Your task to perform on an android device: uninstall "Indeed Job Search" Image 0: 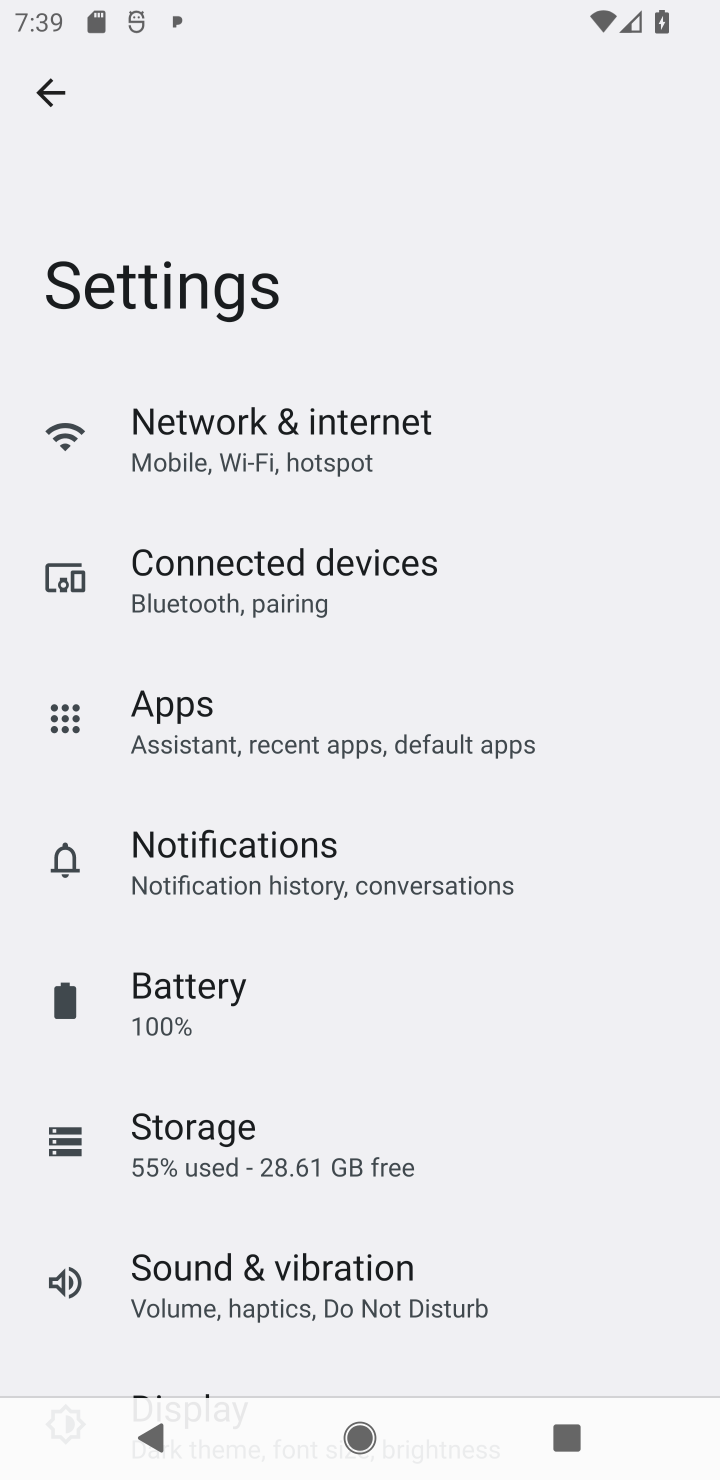
Step 0: press home button
Your task to perform on an android device: uninstall "Indeed Job Search" Image 1: 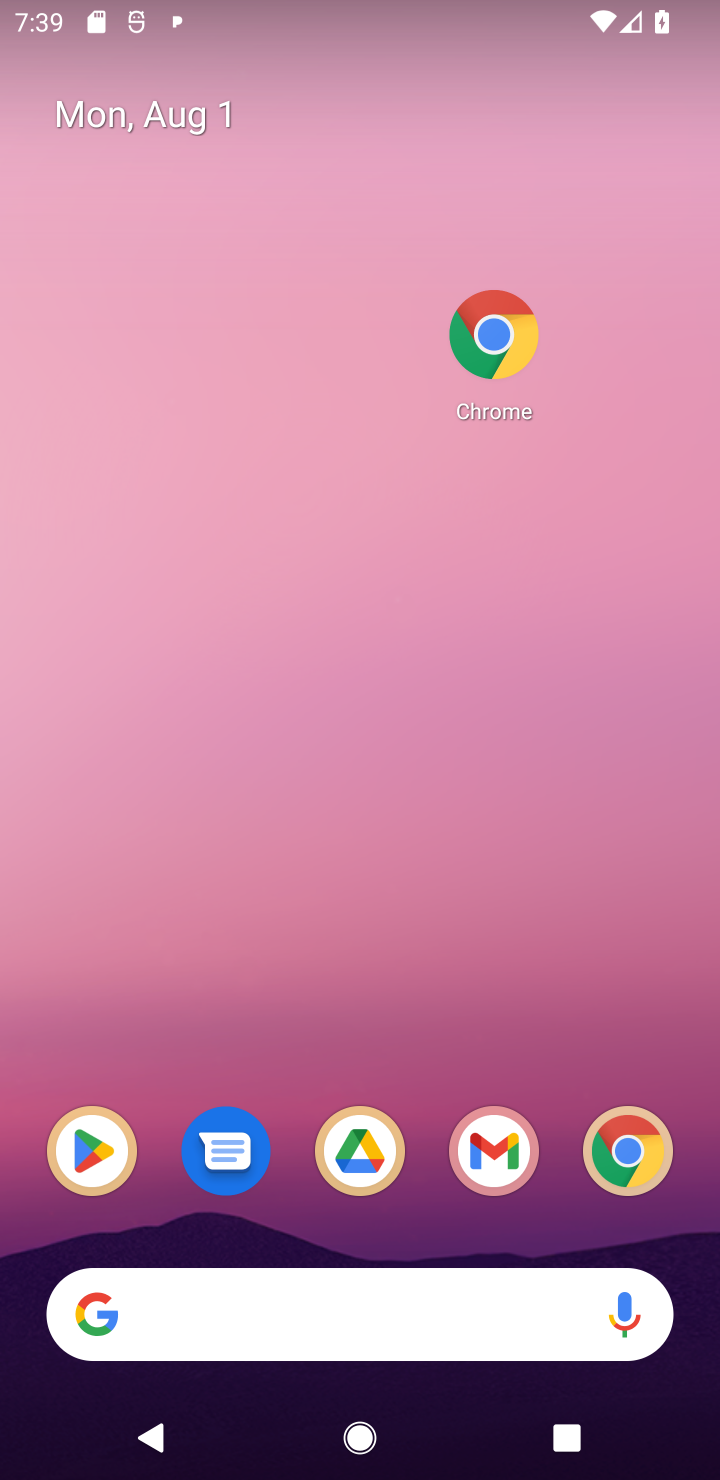
Step 1: click (109, 1145)
Your task to perform on an android device: uninstall "Indeed Job Search" Image 2: 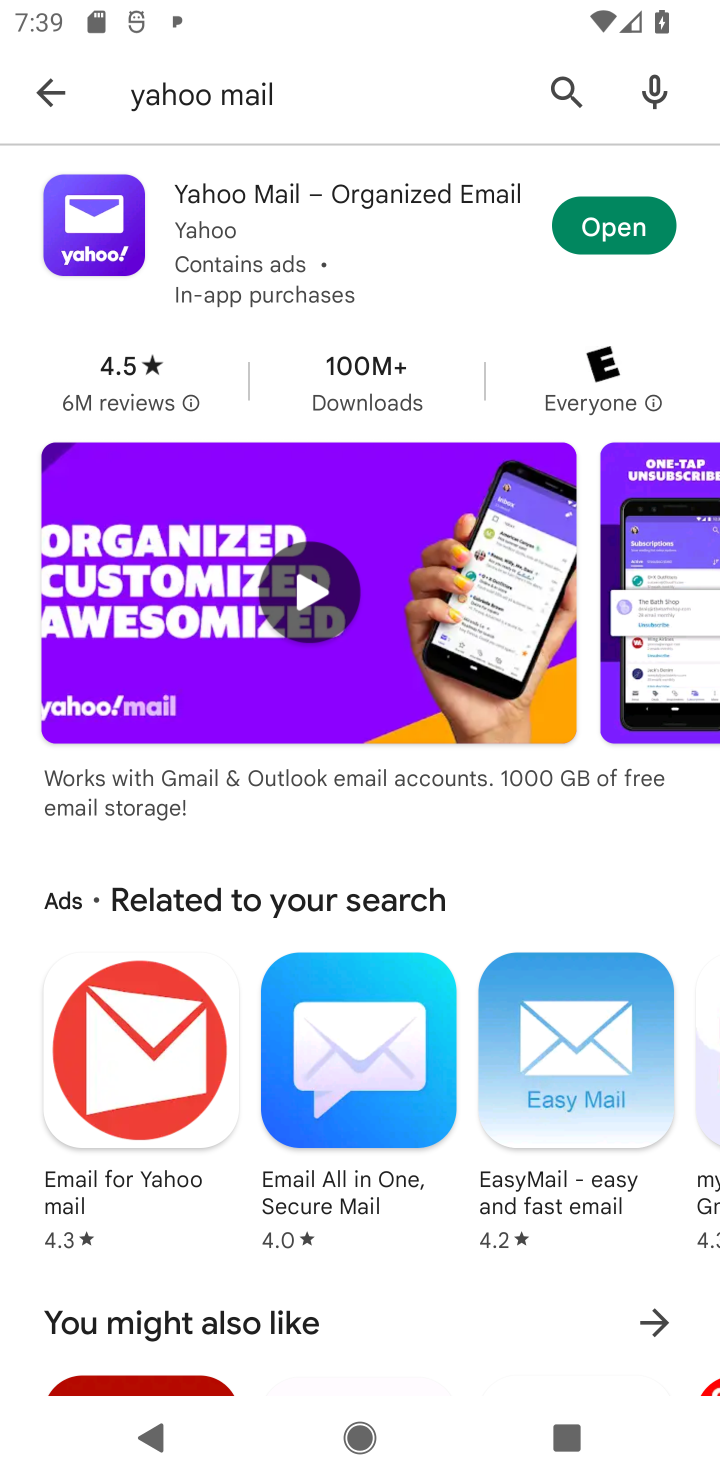
Step 2: click (560, 92)
Your task to perform on an android device: uninstall "Indeed Job Search" Image 3: 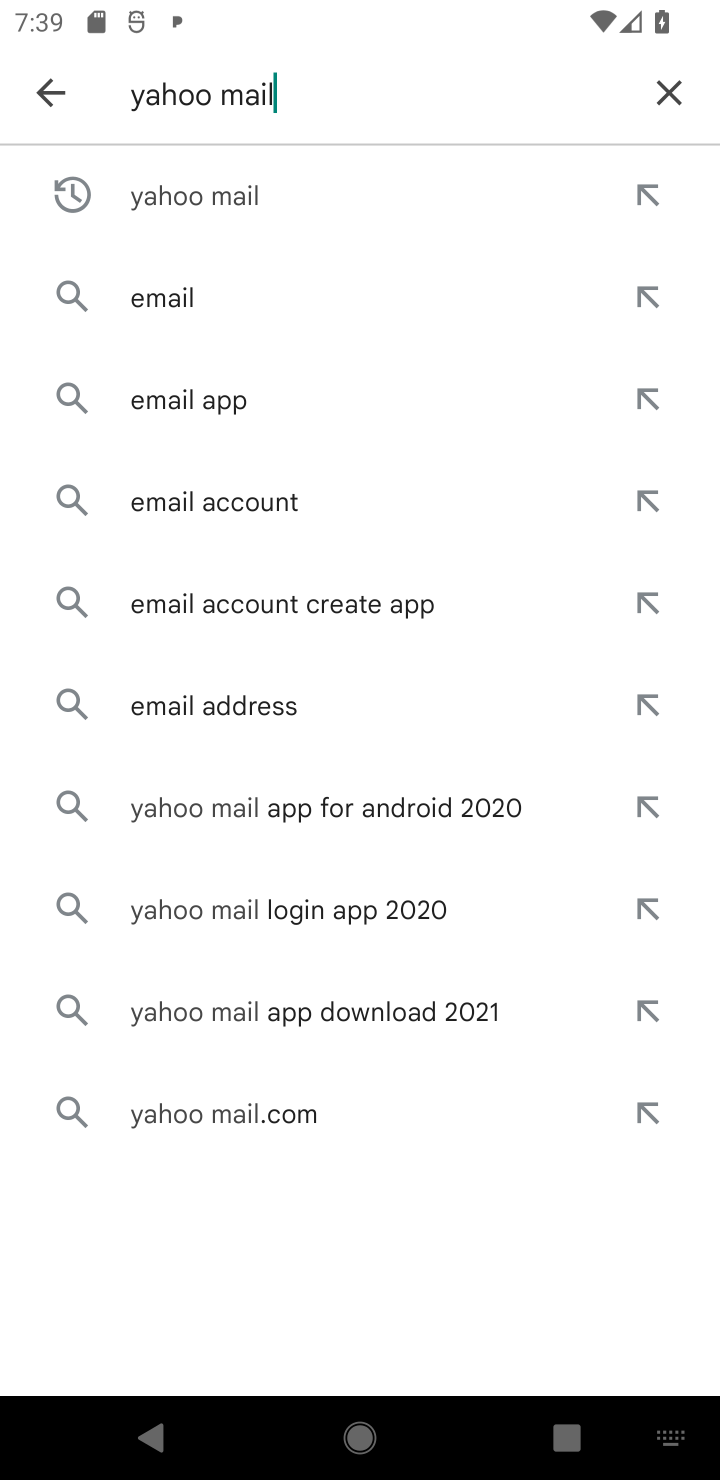
Step 3: click (670, 106)
Your task to perform on an android device: uninstall "Indeed Job Search" Image 4: 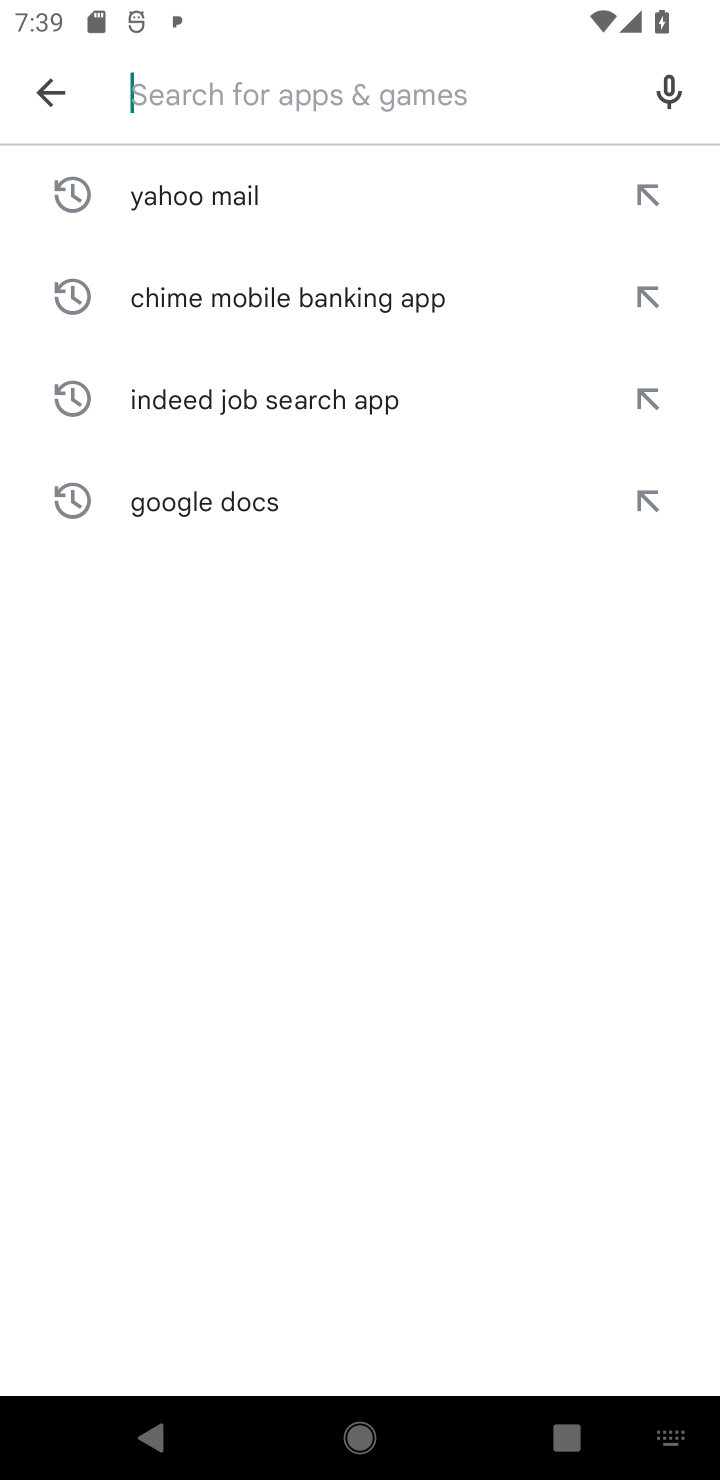
Step 4: type "Indeed Job Search"
Your task to perform on an android device: uninstall "Indeed Job Search" Image 5: 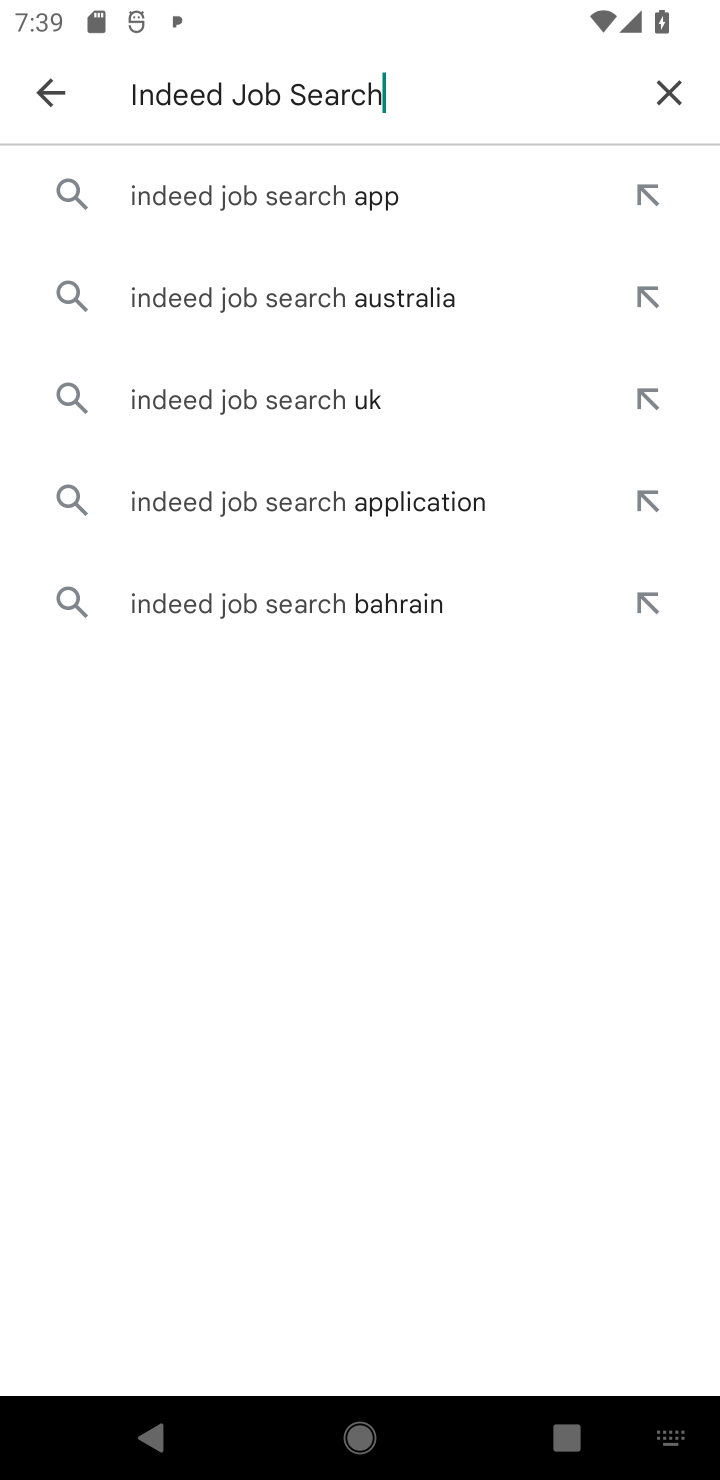
Step 5: click (237, 197)
Your task to perform on an android device: uninstall "Indeed Job Search" Image 6: 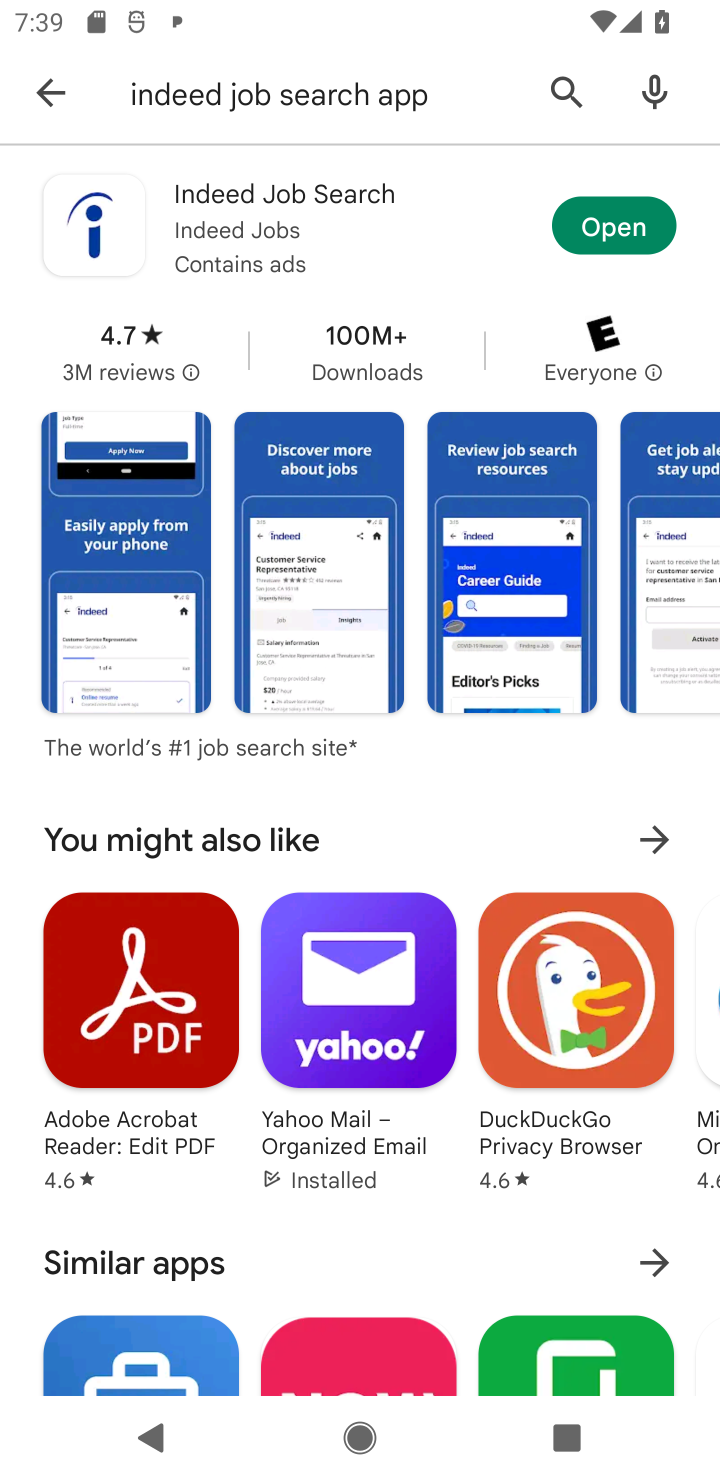
Step 6: click (166, 228)
Your task to perform on an android device: uninstall "Indeed Job Search" Image 7: 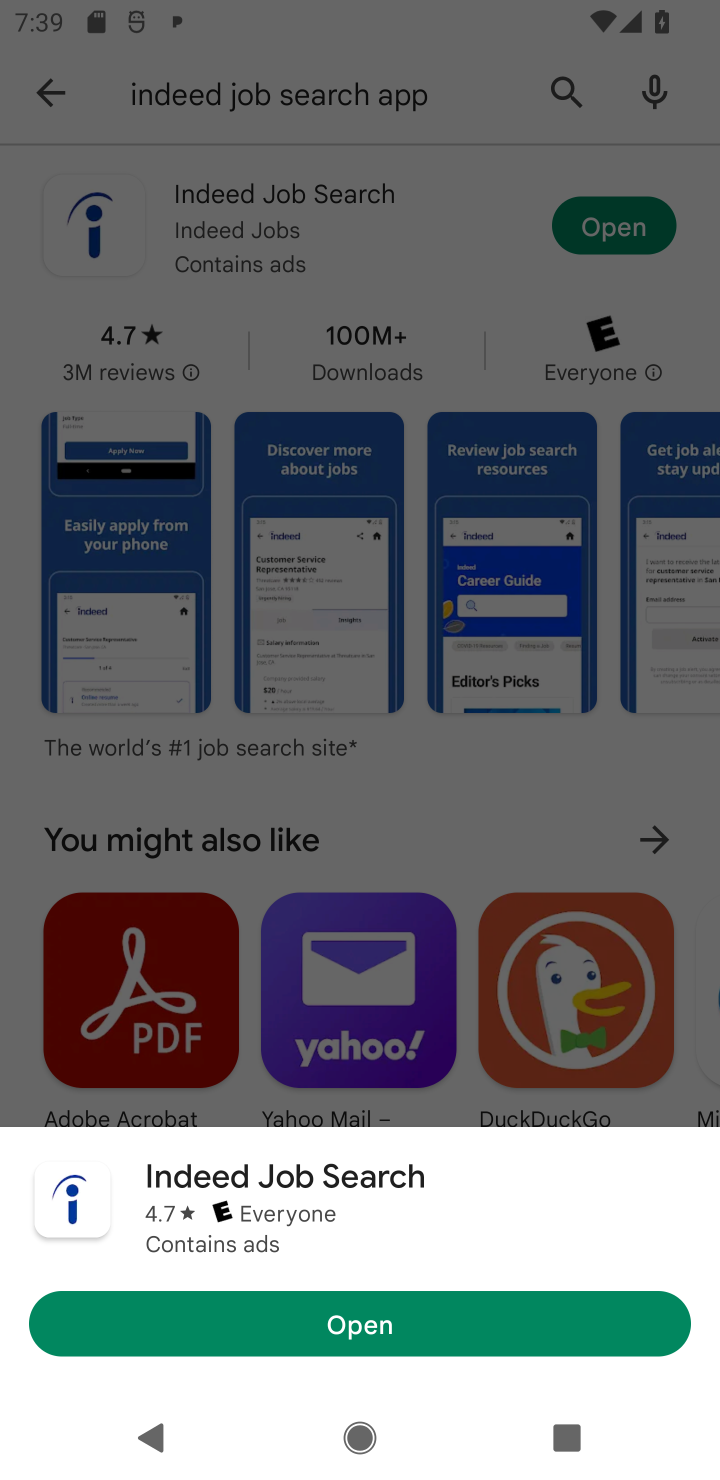
Step 7: click (164, 239)
Your task to perform on an android device: uninstall "Indeed Job Search" Image 8: 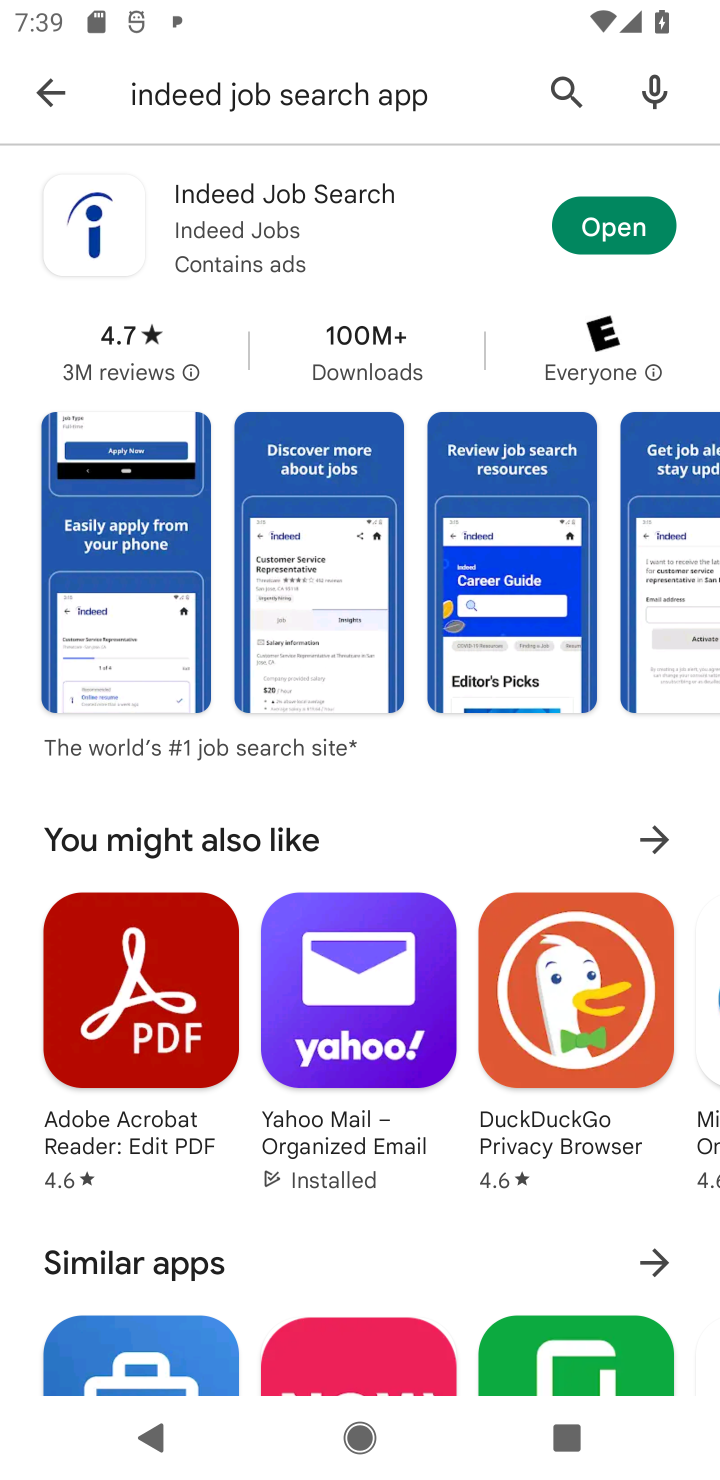
Step 8: click (194, 205)
Your task to perform on an android device: uninstall "Indeed Job Search" Image 9: 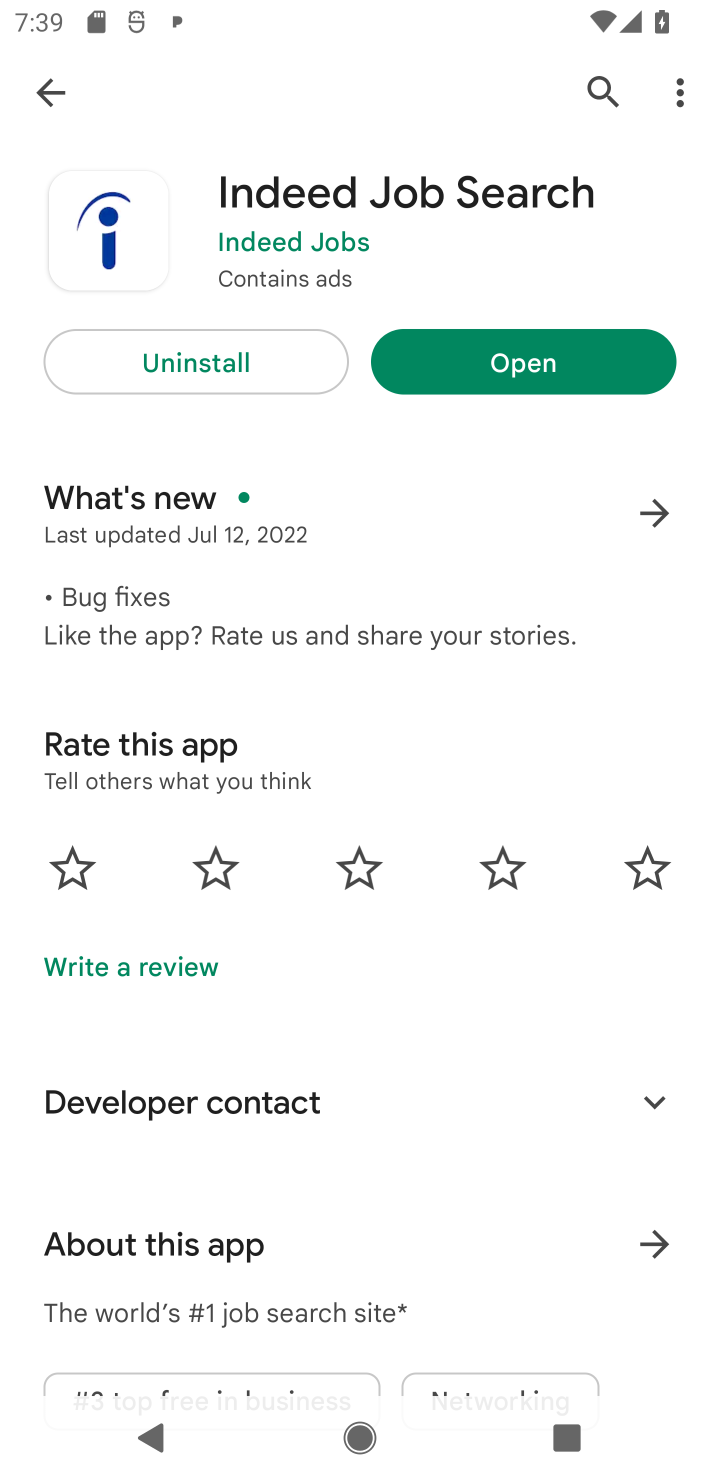
Step 9: click (175, 355)
Your task to perform on an android device: uninstall "Indeed Job Search" Image 10: 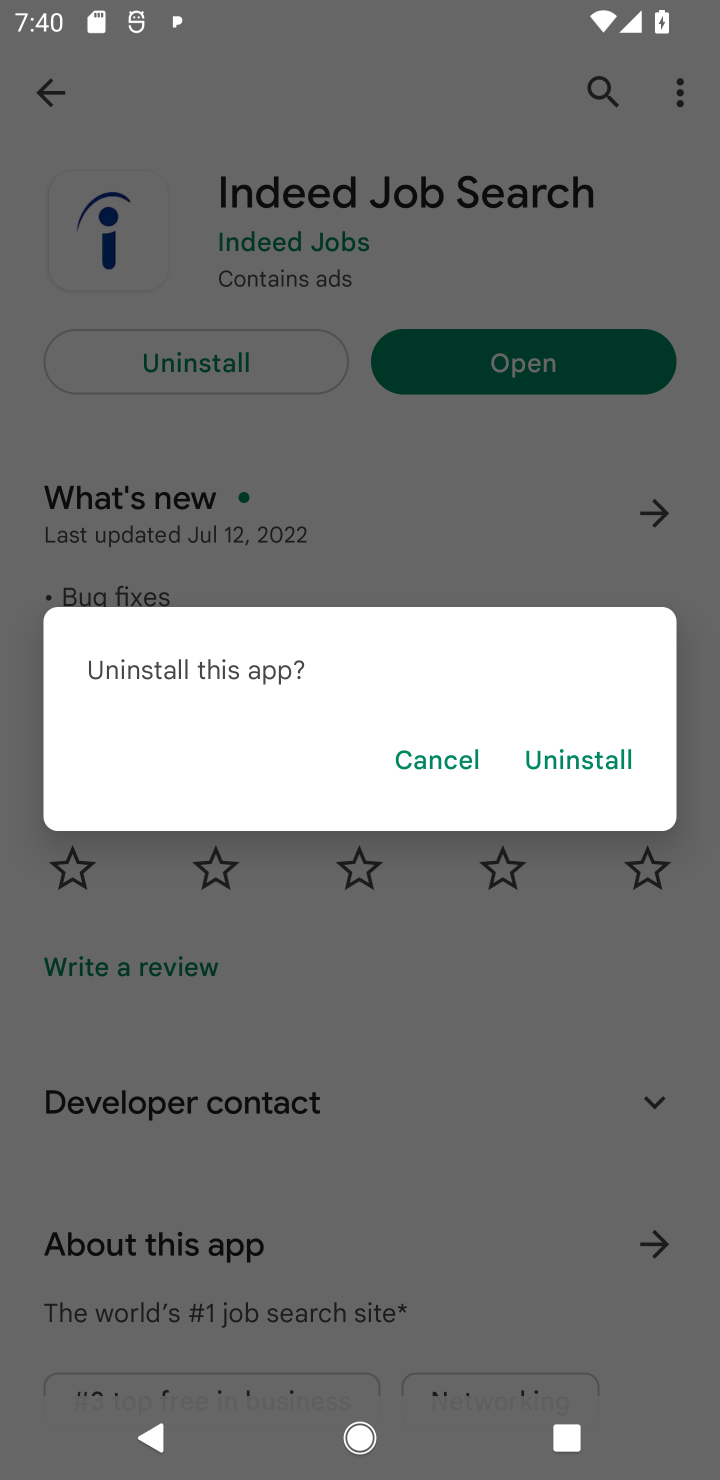
Step 10: click (569, 769)
Your task to perform on an android device: uninstall "Indeed Job Search" Image 11: 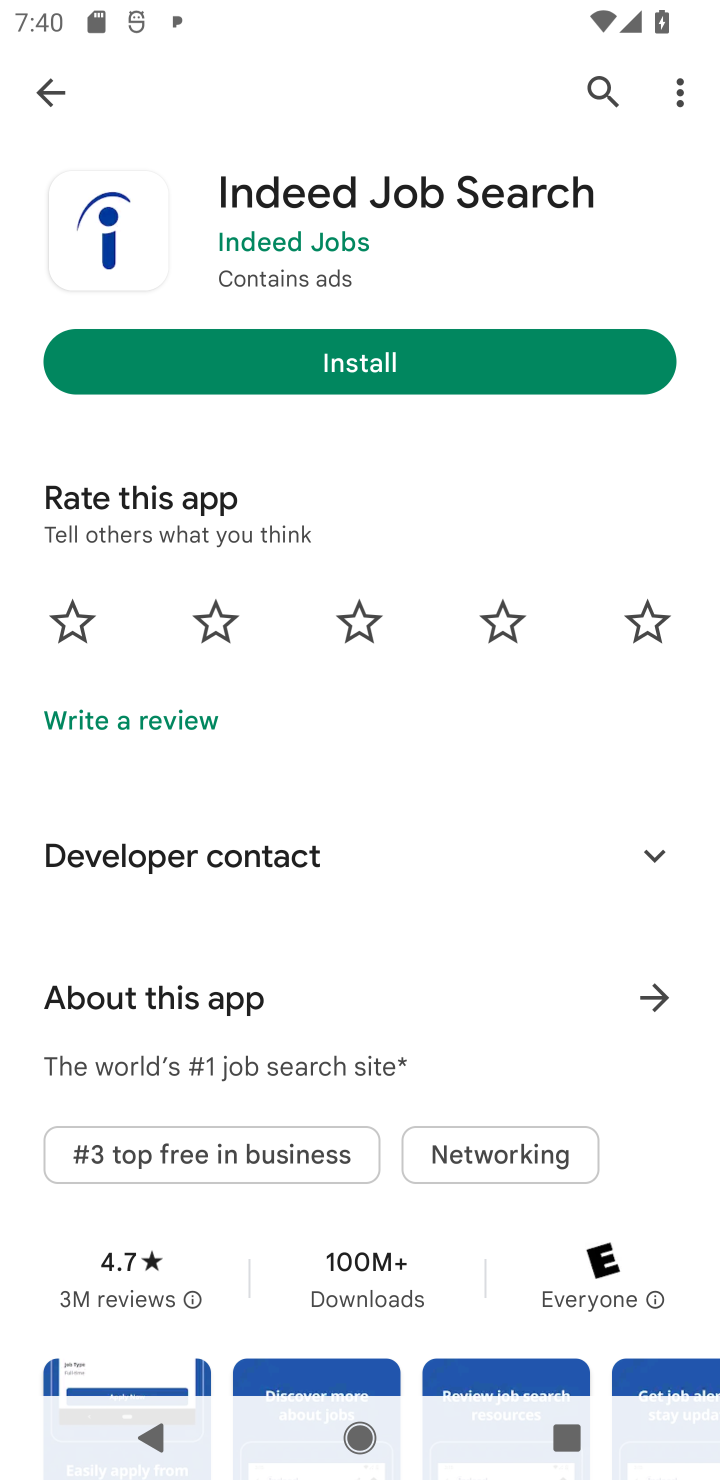
Step 11: task complete